Your task to perform on an android device: Go to internet settings Image 0: 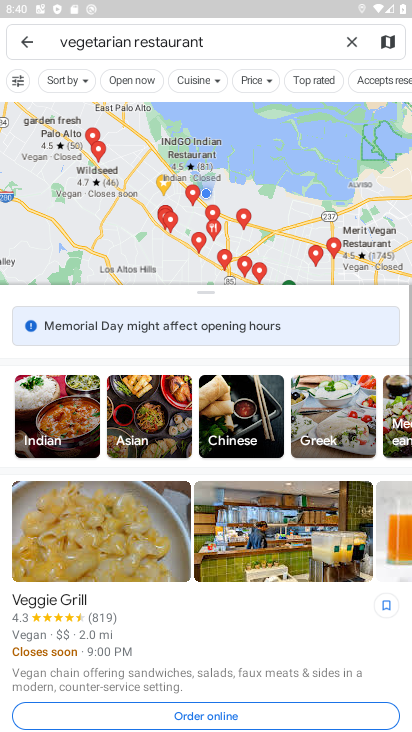
Step 0: press home button
Your task to perform on an android device: Go to internet settings Image 1: 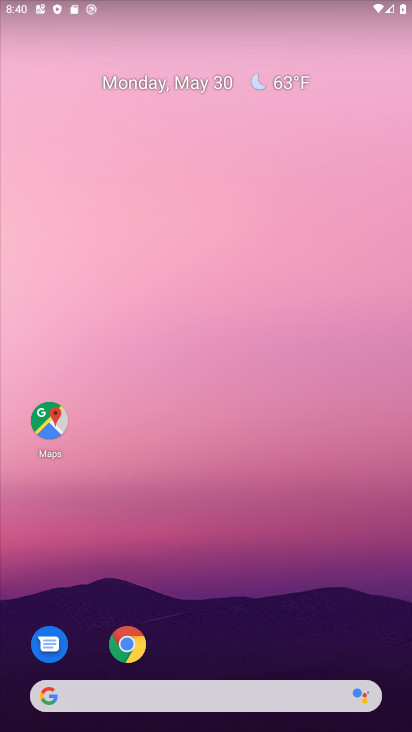
Step 1: drag from (229, 627) to (300, 34)
Your task to perform on an android device: Go to internet settings Image 2: 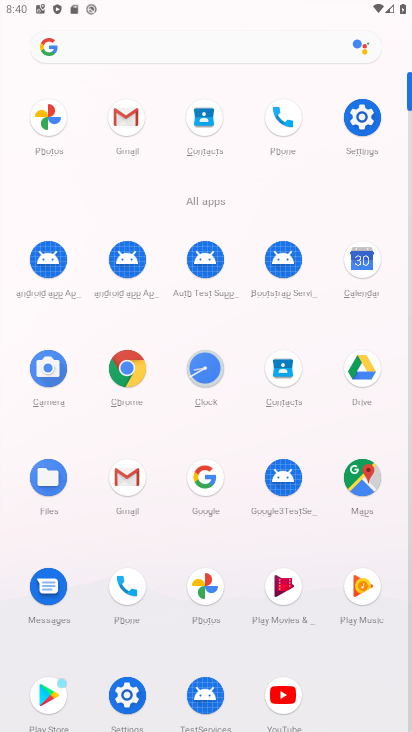
Step 2: click (359, 112)
Your task to perform on an android device: Go to internet settings Image 3: 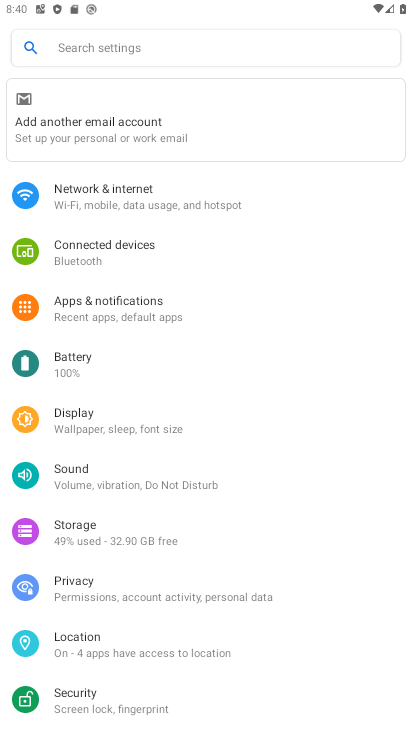
Step 3: click (117, 200)
Your task to perform on an android device: Go to internet settings Image 4: 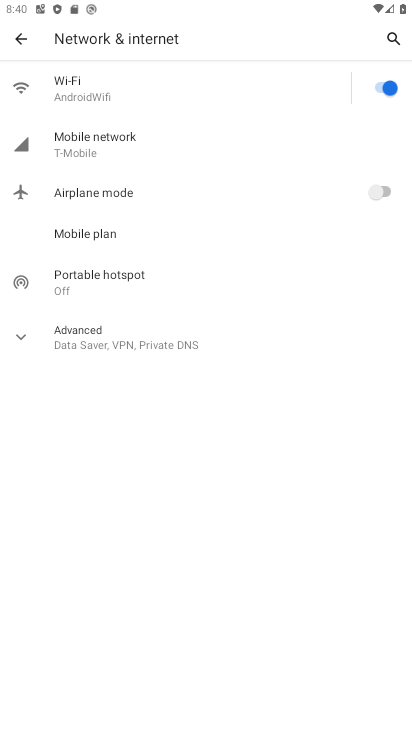
Step 4: click (107, 91)
Your task to perform on an android device: Go to internet settings Image 5: 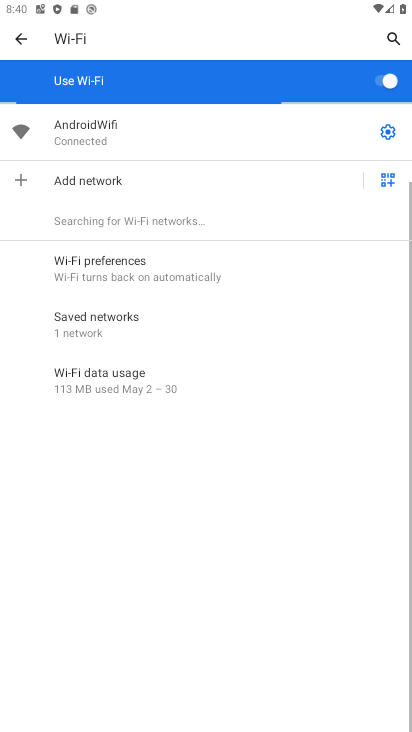
Step 5: click (145, 140)
Your task to perform on an android device: Go to internet settings Image 6: 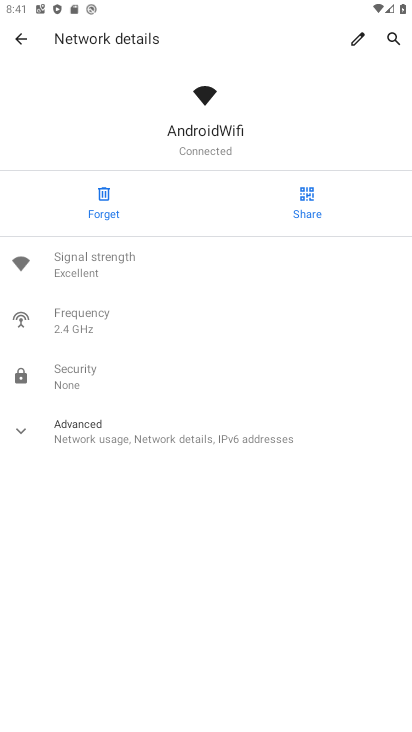
Step 6: task complete